Your task to perform on an android device: find photos in the google photos app Image 0: 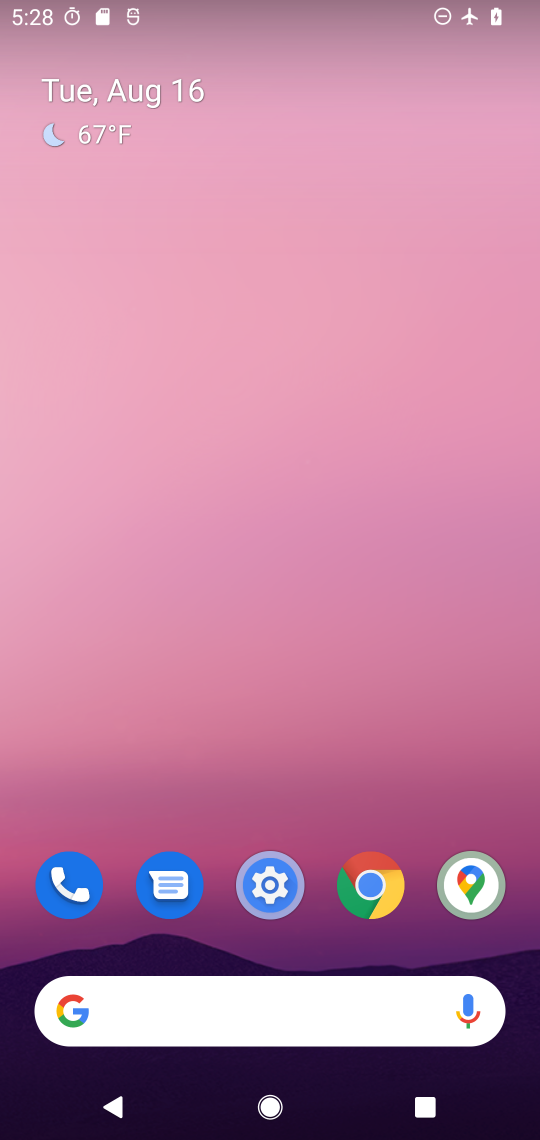
Step 0: drag from (415, 871) to (292, 28)
Your task to perform on an android device: find photos in the google photos app Image 1: 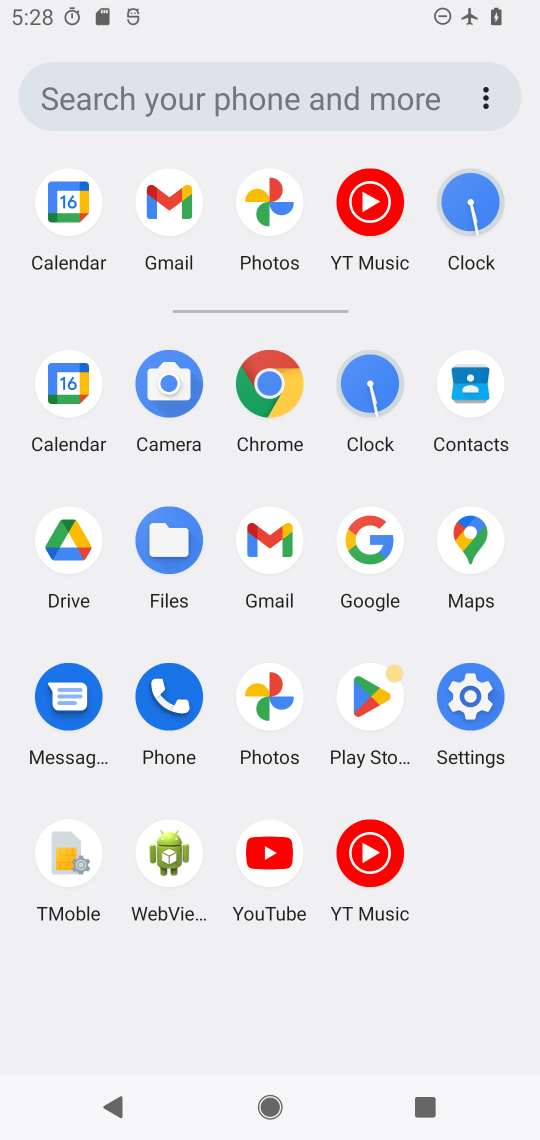
Step 1: click (282, 668)
Your task to perform on an android device: find photos in the google photos app Image 2: 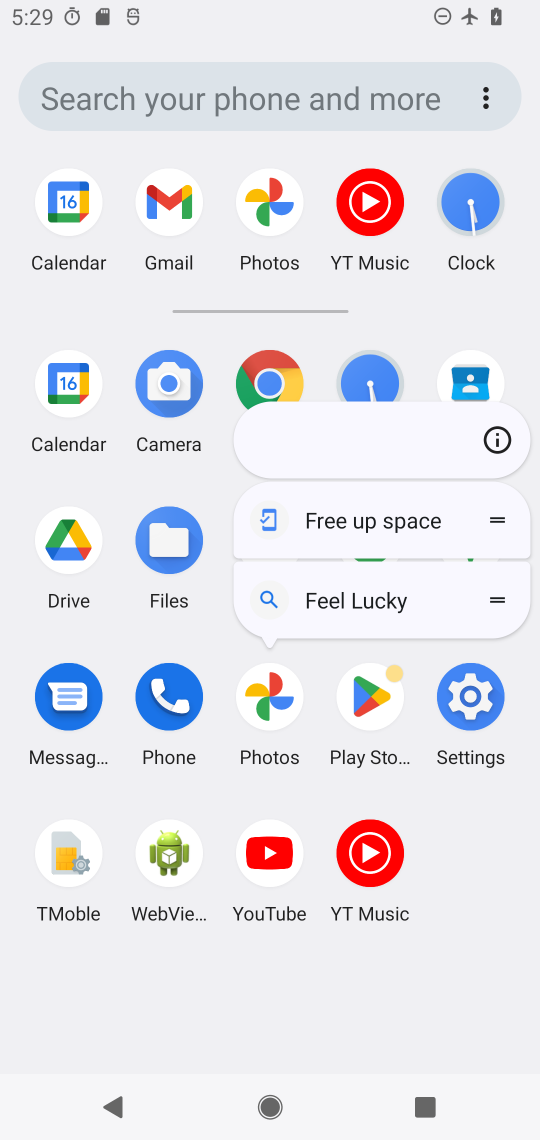
Step 2: click (257, 698)
Your task to perform on an android device: find photos in the google photos app Image 3: 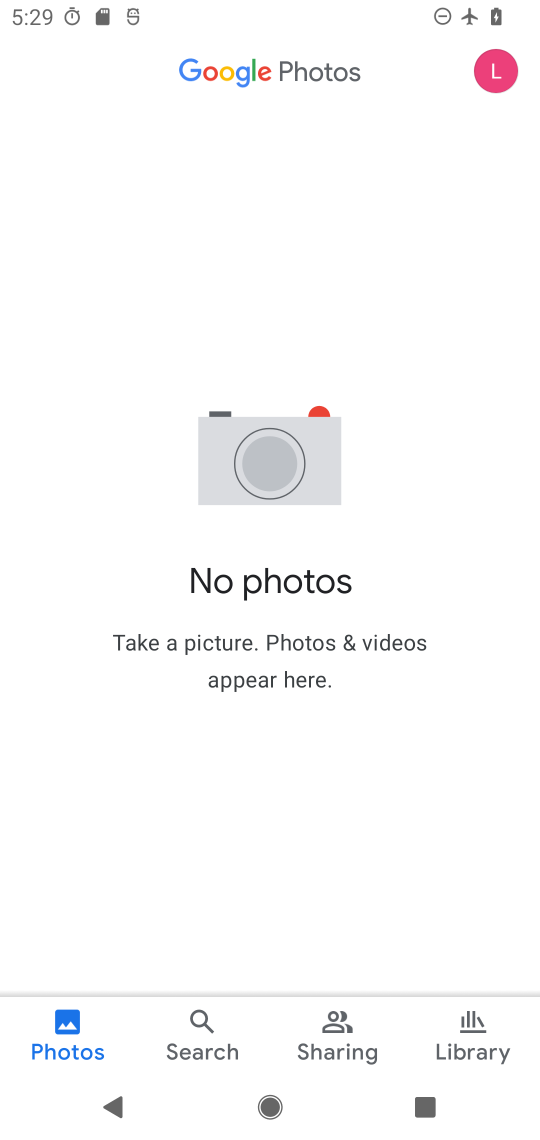
Step 3: task complete